Your task to perform on an android device: Open network settings Image 0: 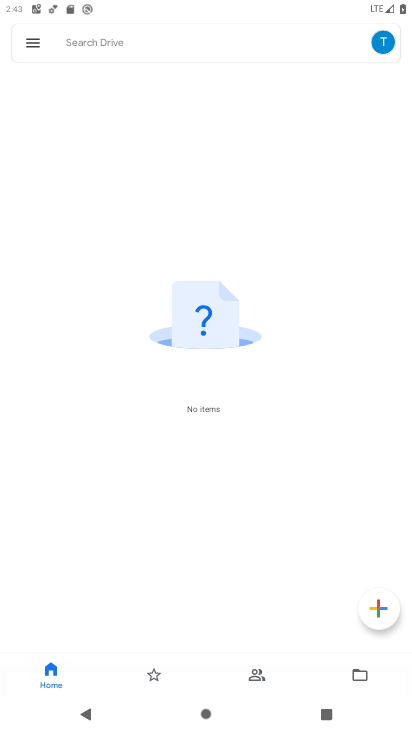
Step 0: press home button
Your task to perform on an android device: Open network settings Image 1: 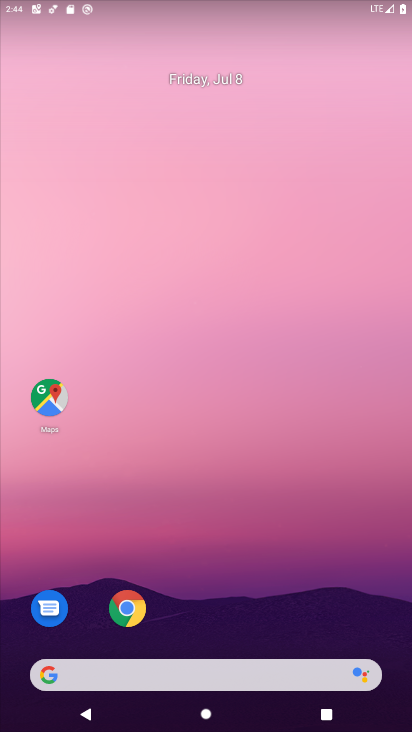
Step 1: drag from (218, 657) to (250, 235)
Your task to perform on an android device: Open network settings Image 2: 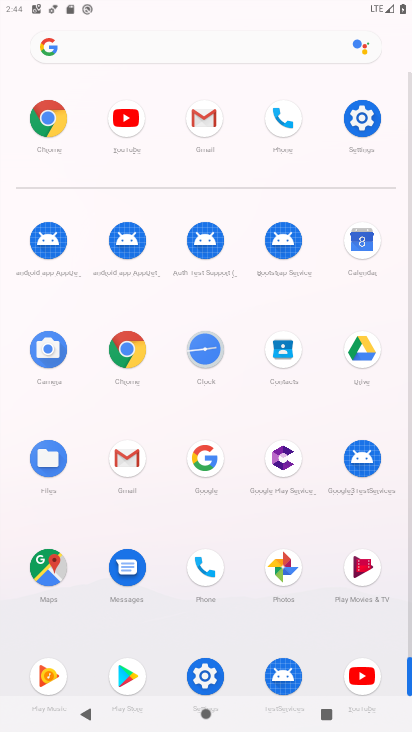
Step 2: click (362, 105)
Your task to perform on an android device: Open network settings Image 3: 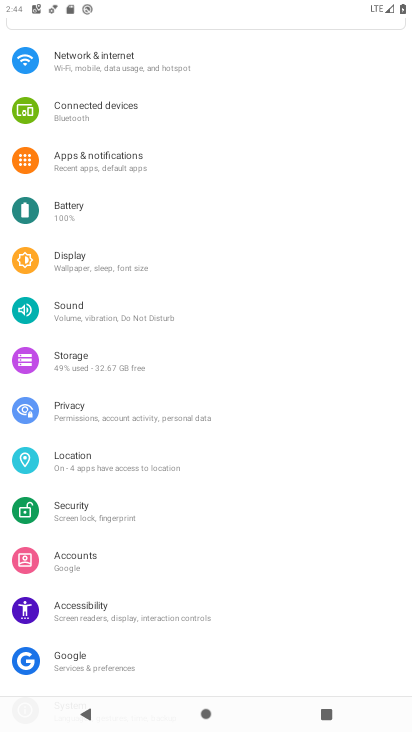
Step 3: click (99, 75)
Your task to perform on an android device: Open network settings Image 4: 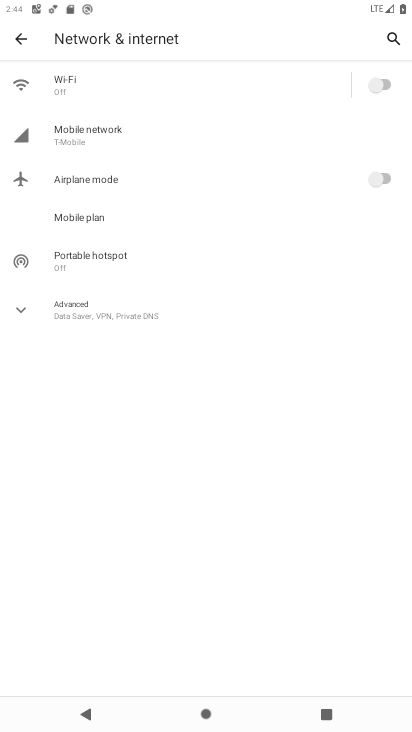
Step 4: task complete